Your task to perform on an android device: Show me recent news Image 0: 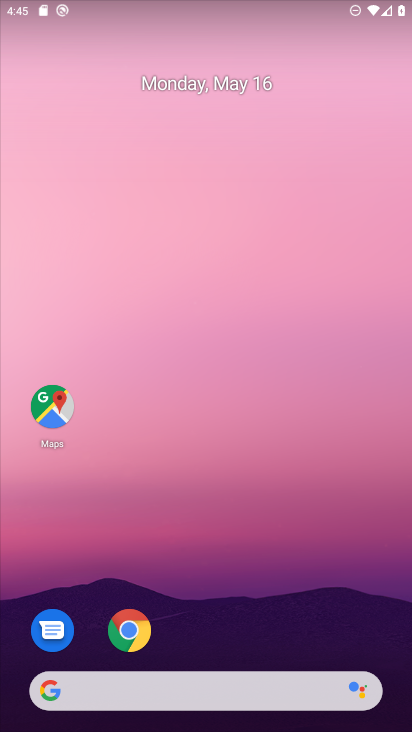
Step 0: press home button
Your task to perform on an android device: Show me recent news Image 1: 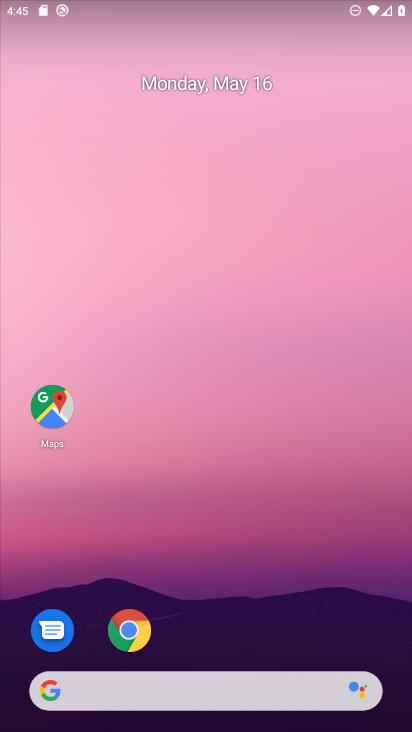
Step 1: drag from (10, 731) to (118, 729)
Your task to perform on an android device: Show me recent news Image 2: 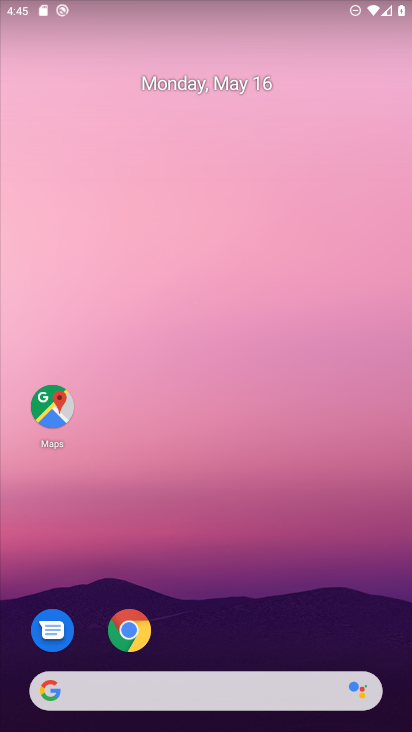
Step 2: click (134, 640)
Your task to perform on an android device: Show me recent news Image 3: 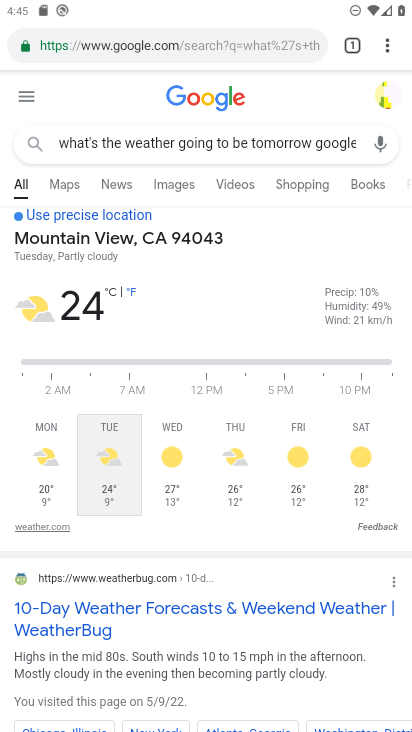
Step 3: click (263, 47)
Your task to perform on an android device: Show me recent news Image 4: 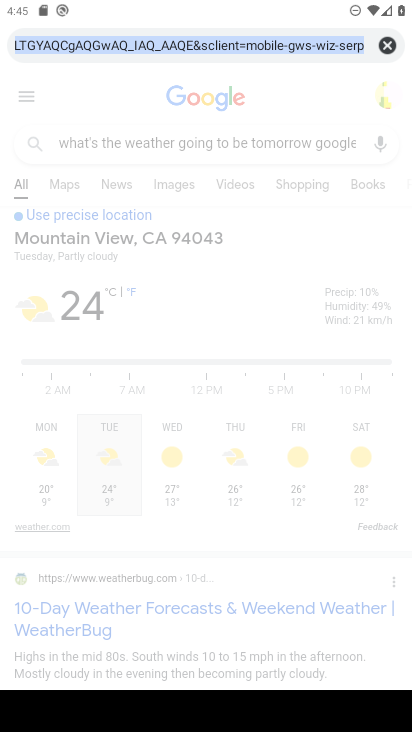
Step 4: click (386, 44)
Your task to perform on an android device: Show me recent news Image 5: 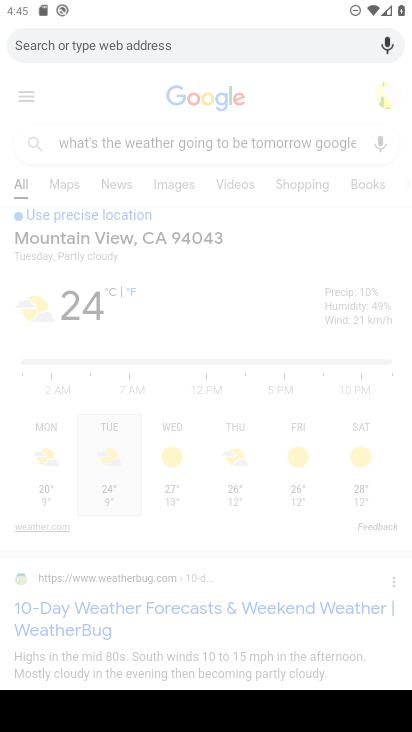
Step 5: type "Show me recent news"
Your task to perform on an android device: Show me recent news Image 6: 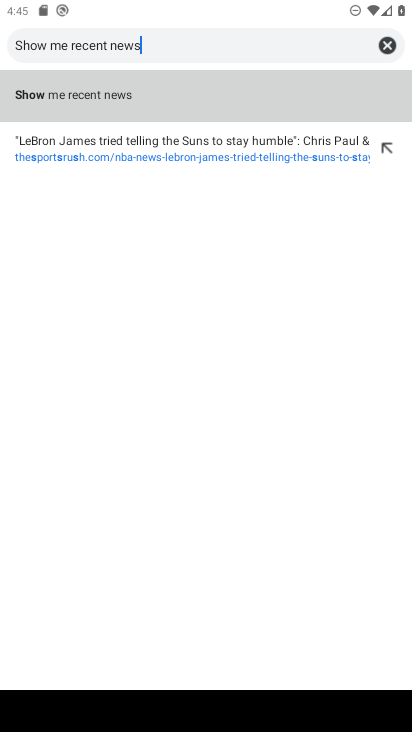
Step 6: type ""
Your task to perform on an android device: Show me recent news Image 7: 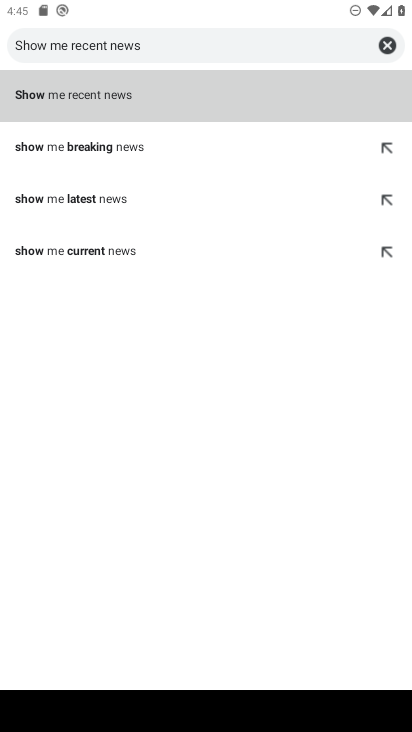
Step 7: click (63, 103)
Your task to perform on an android device: Show me recent news Image 8: 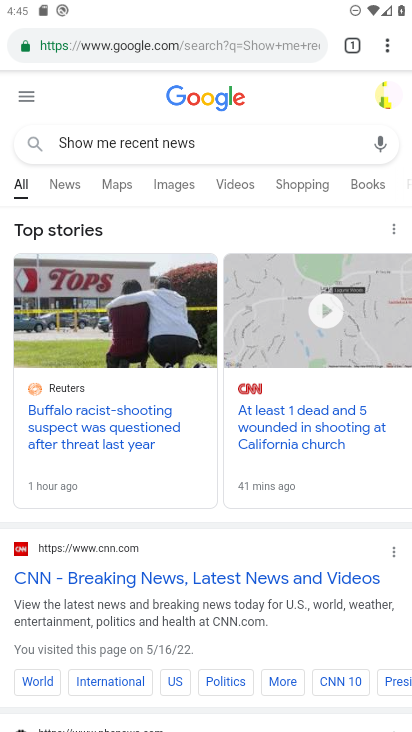
Step 8: task complete